Your task to perform on an android device: Open CNN.com Image 0: 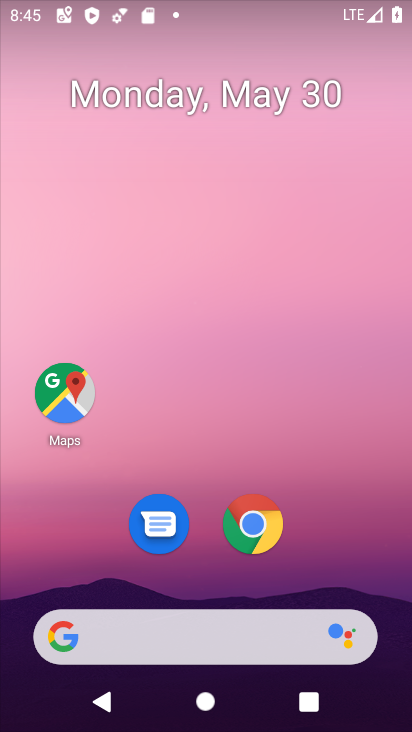
Step 0: click (228, 638)
Your task to perform on an android device: Open CNN.com Image 1: 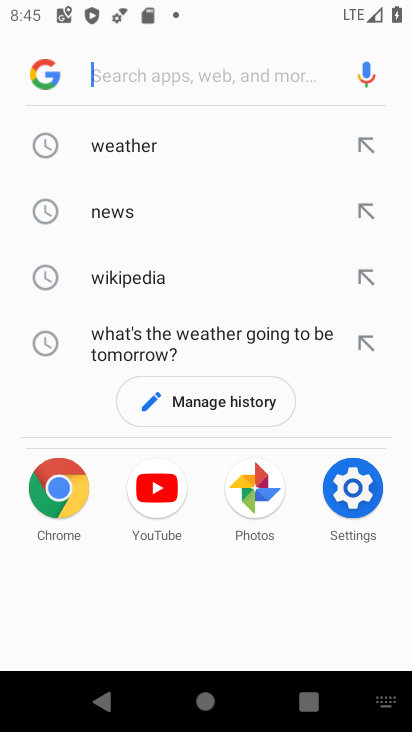
Step 1: type "cnn.com"
Your task to perform on an android device: Open CNN.com Image 2: 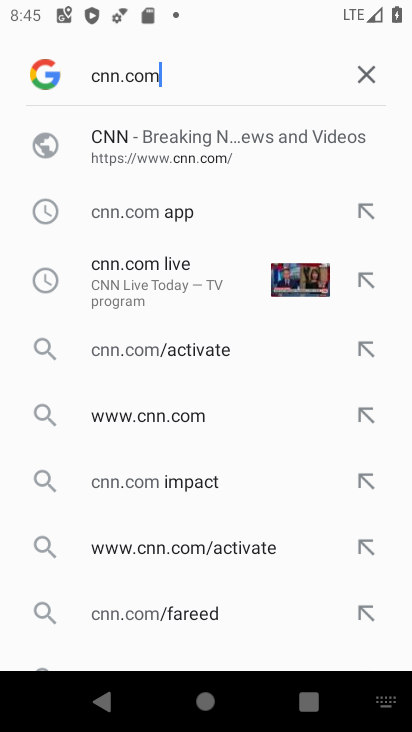
Step 2: click (118, 142)
Your task to perform on an android device: Open CNN.com Image 3: 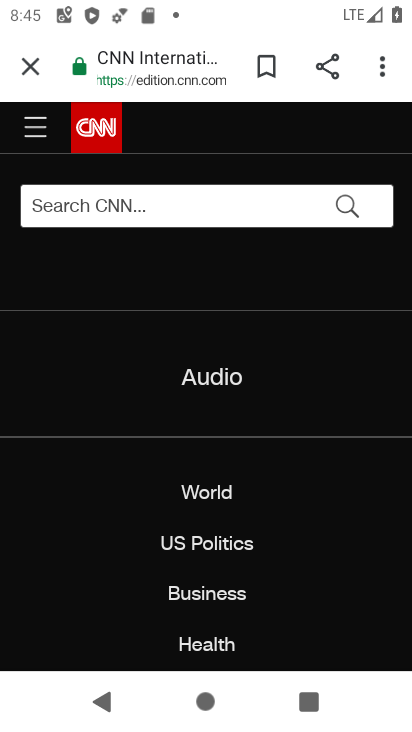
Step 3: task complete